Your task to perform on an android device: turn off translation in the chrome app Image 0: 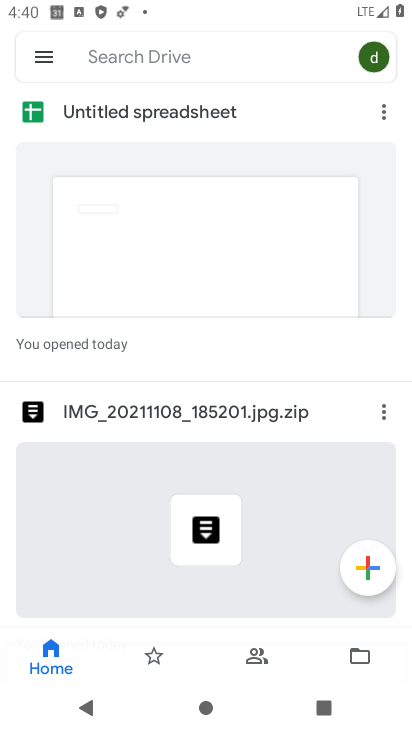
Step 0: press home button
Your task to perform on an android device: turn off translation in the chrome app Image 1: 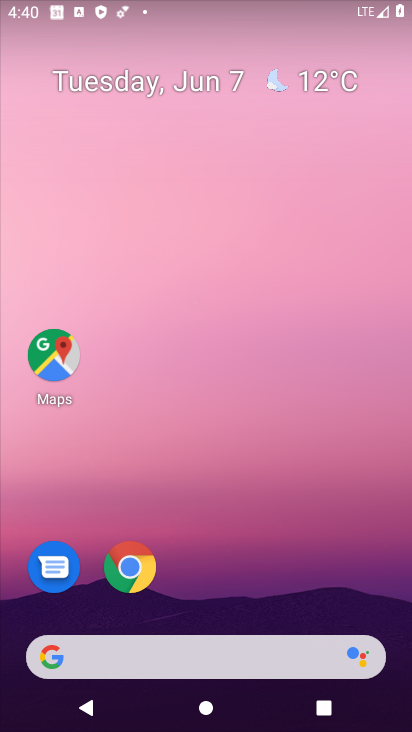
Step 1: drag from (304, 653) to (299, 98)
Your task to perform on an android device: turn off translation in the chrome app Image 2: 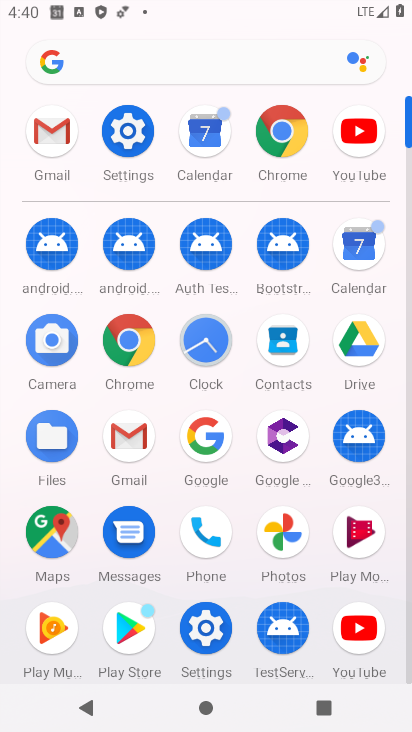
Step 2: click (135, 333)
Your task to perform on an android device: turn off translation in the chrome app Image 3: 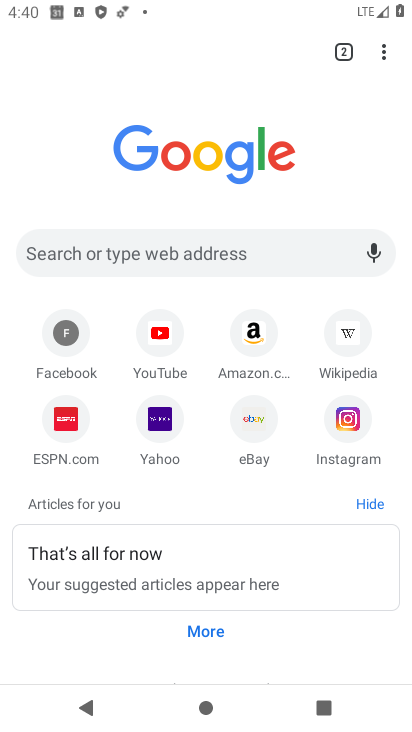
Step 3: click (381, 47)
Your task to perform on an android device: turn off translation in the chrome app Image 4: 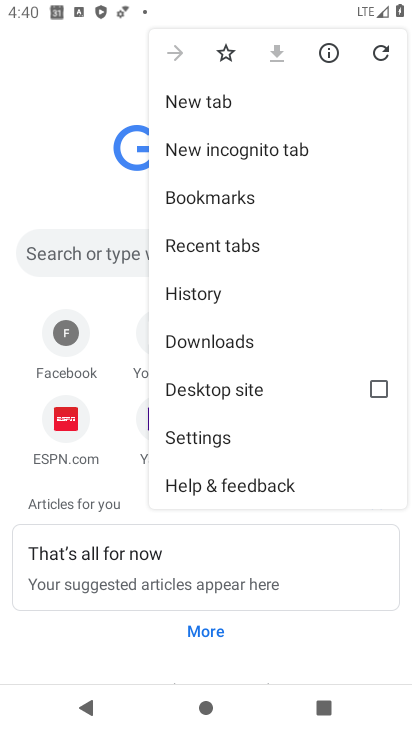
Step 4: click (191, 429)
Your task to perform on an android device: turn off translation in the chrome app Image 5: 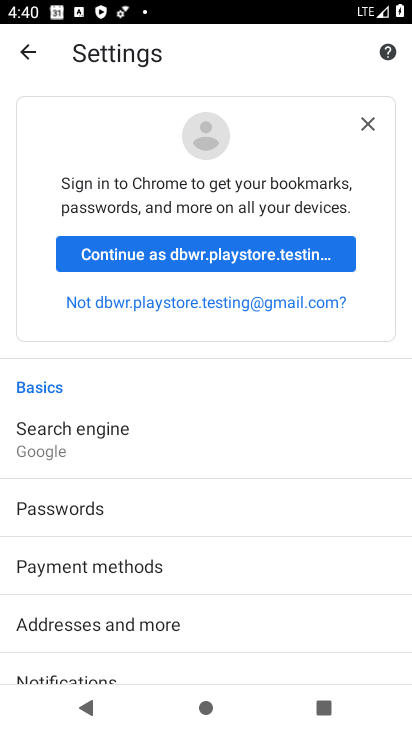
Step 5: drag from (171, 646) to (200, 138)
Your task to perform on an android device: turn off translation in the chrome app Image 6: 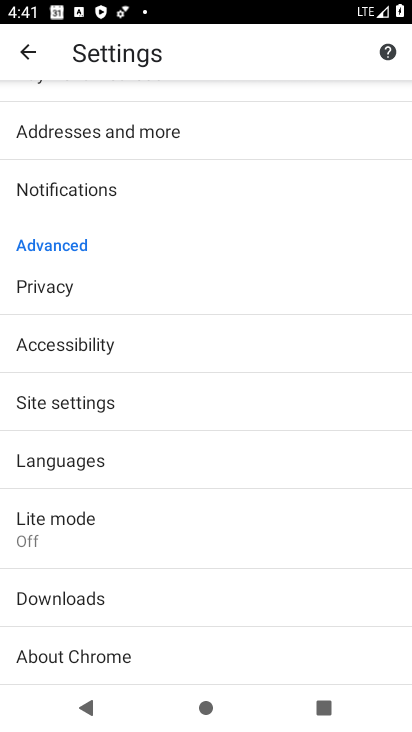
Step 6: click (126, 466)
Your task to perform on an android device: turn off translation in the chrome app Image 7: 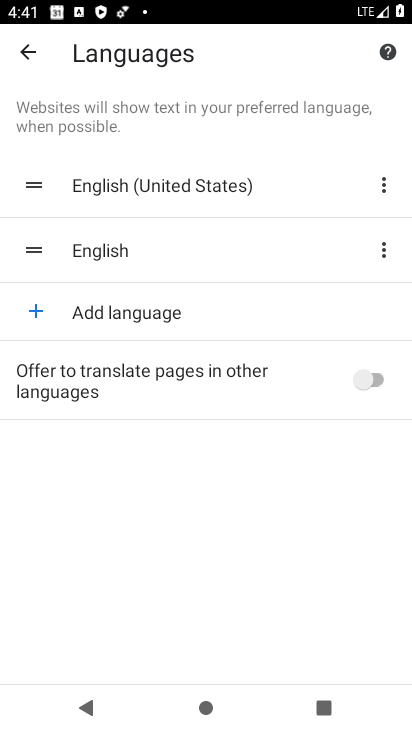
Step 7: task complete